Your task to perform on an android device: clear history in the chrome app Image 0: 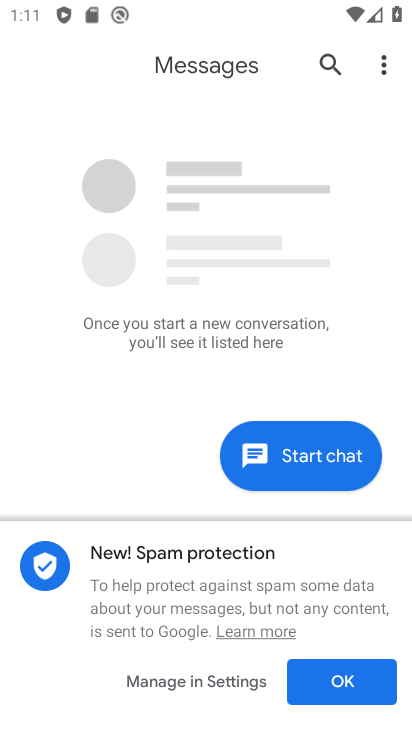
Step 0: press home button
Your task to perform on an android device: clear history in the chrome app Image 1: 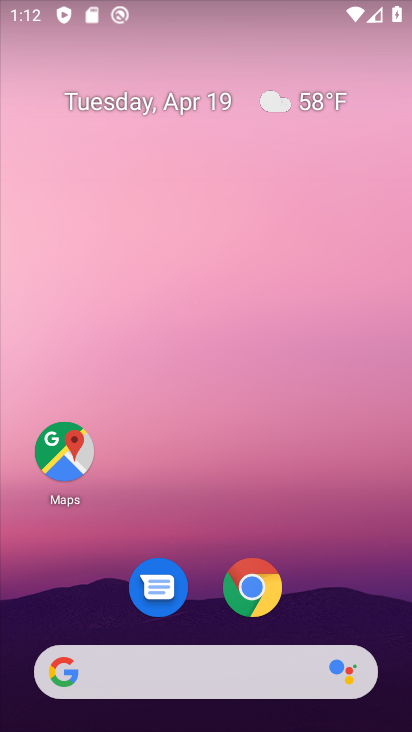
Step 1: drag from (320, 600) to (271, 146)
Your task to perform on an android device: clear history in the chrome app Image 2: 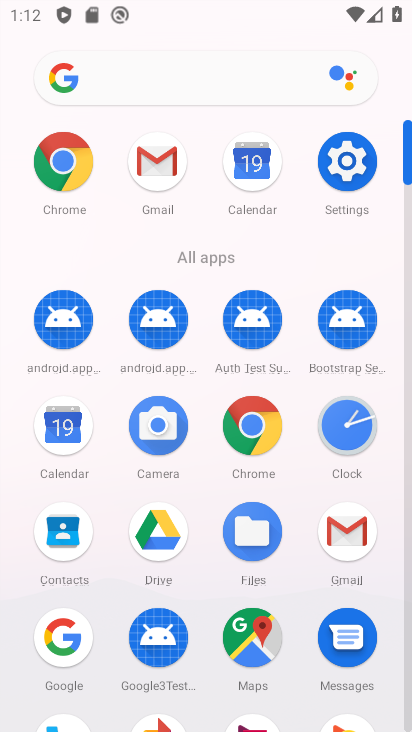
Step 2: click (60, 164)
Your task to perform on an android device: clear history in the chrome app Image 3: 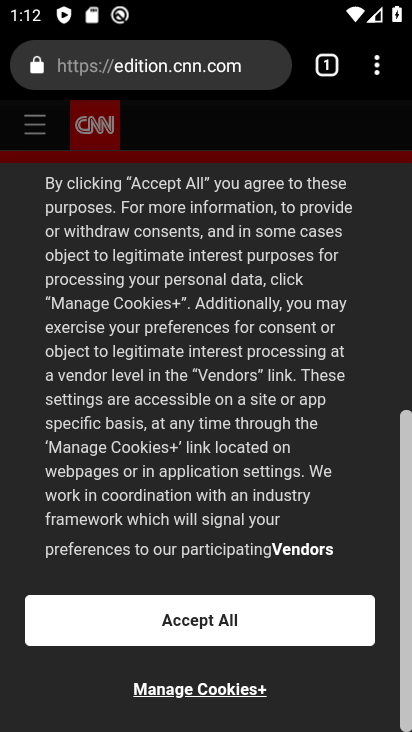
Step 3: click (372, 47)
Your task to perform on an android device: clear history in the chrome app Image 4: 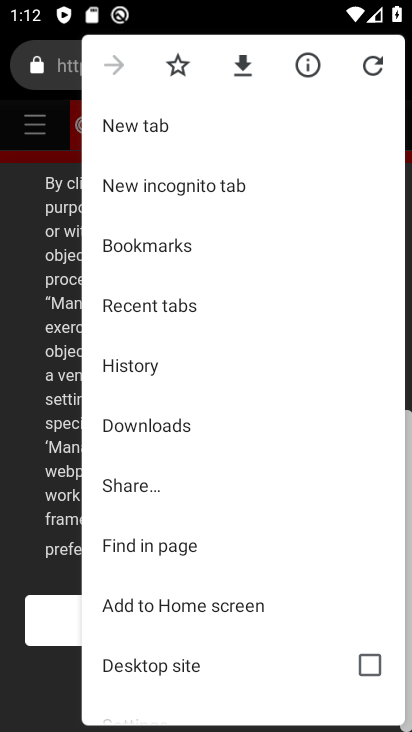
Step 4: click (126, 365)
Your task to perform on an android device: clear history in the chrome app Image 5: 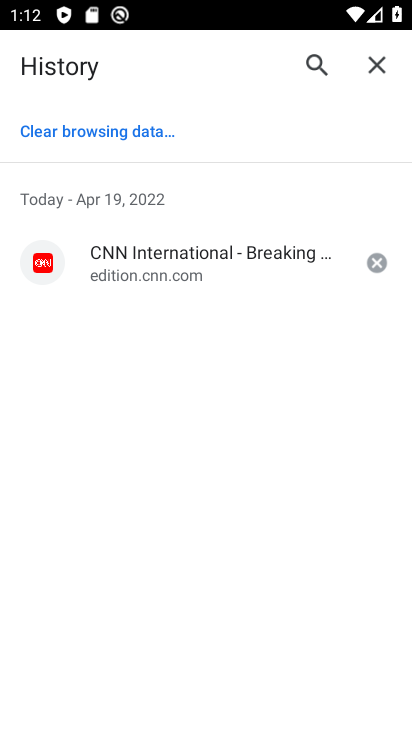
Step 5: click (123, 132)
Your task to perform on an android device: clear history in the chrome app Image 6: 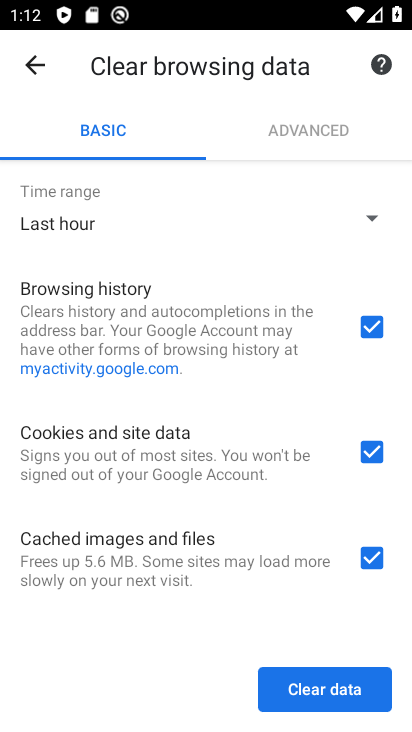
Step 6: click (316, 692)
Your task to perform on an android device: clear history in the chrome app Image 7: 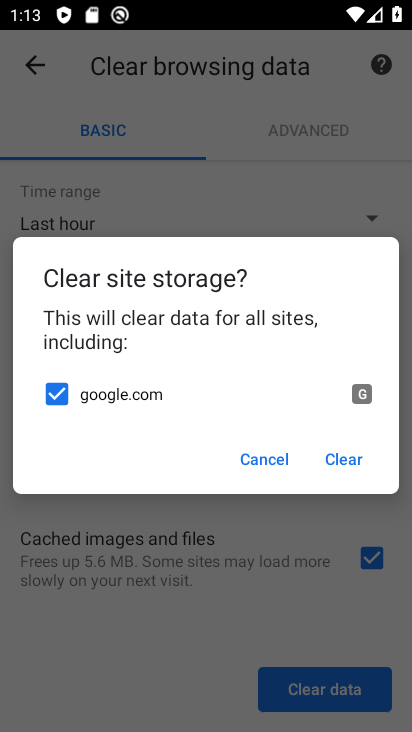
Step 7: click (347, 460)
Your task to perform on an android device: clear history in the chrome app Image 8: 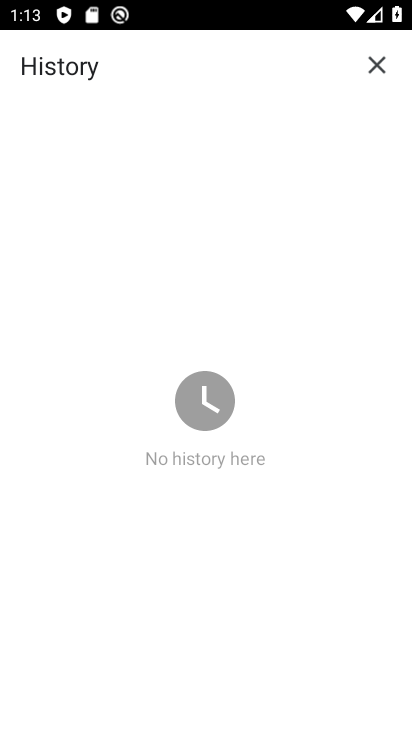
Step 8: task complete